Your task to perform on an android device: turn off location history Image 0: 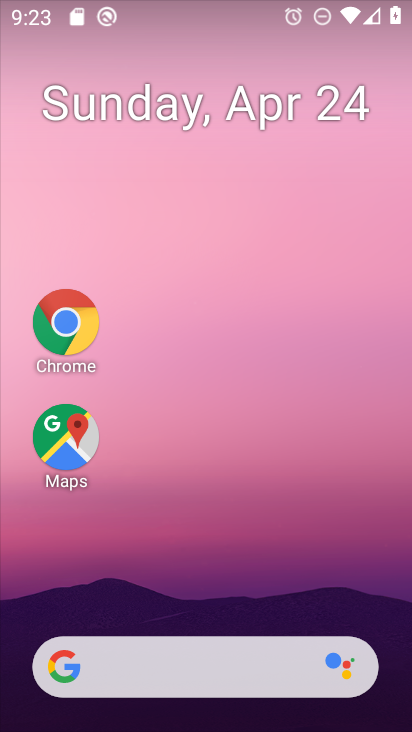
Step 0: click (54, 429)
Your task to perform on an android device: turn off location history Image 1: 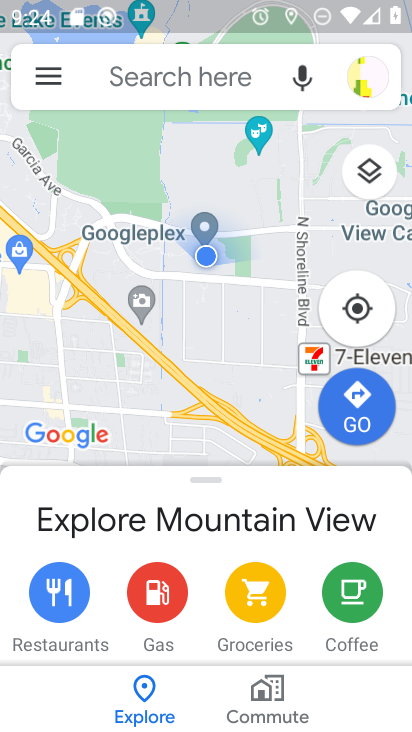
Step 1: click (55, 65)
Your task to perform on an android device: turn off location history Image 2: 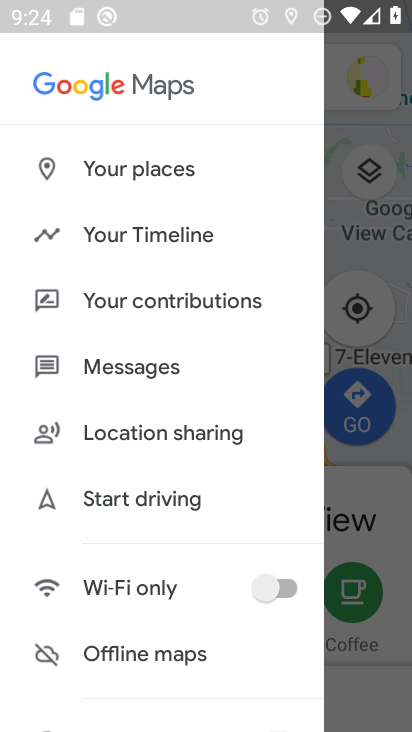
Step 2: click (129, 230)
Your task to perform on an android device: turn off location history Image 3: 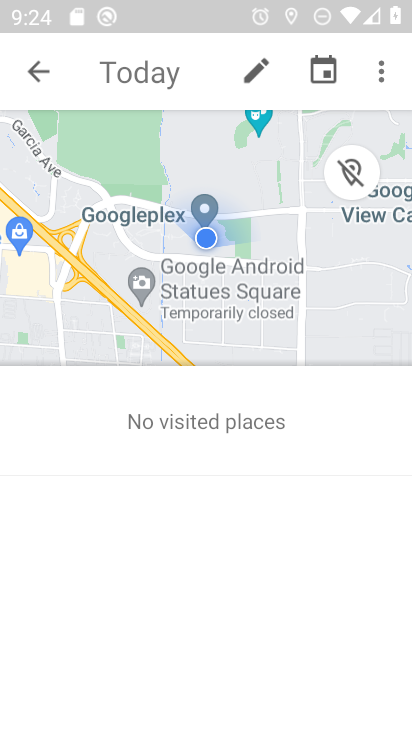
Step 3: click (380, 75)
Your task to perform on an android device: turn off location history Image 4: 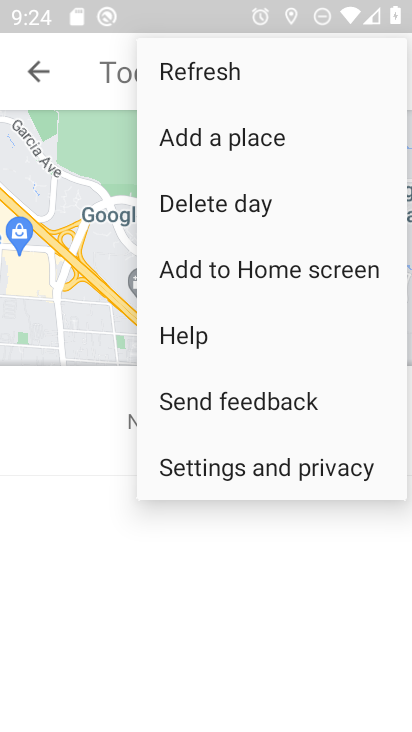
Step 4: click (273, 471)
Your task to perform on an android device: turn off location history Image 5: 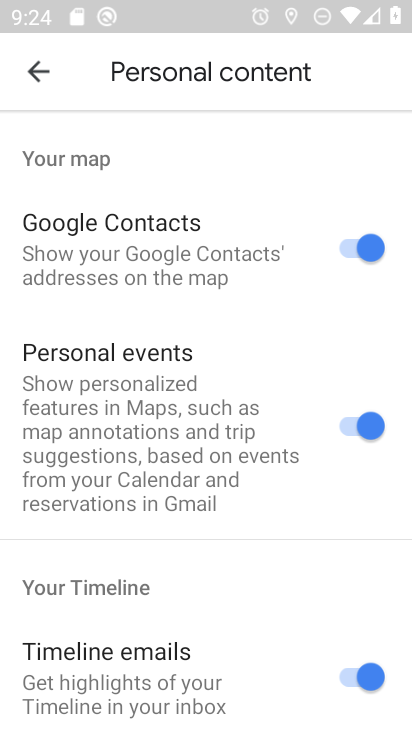
Step 5: drag from (246, 601) to (164, 122)
Your task to perform on an android device: turn off location history Image 6: 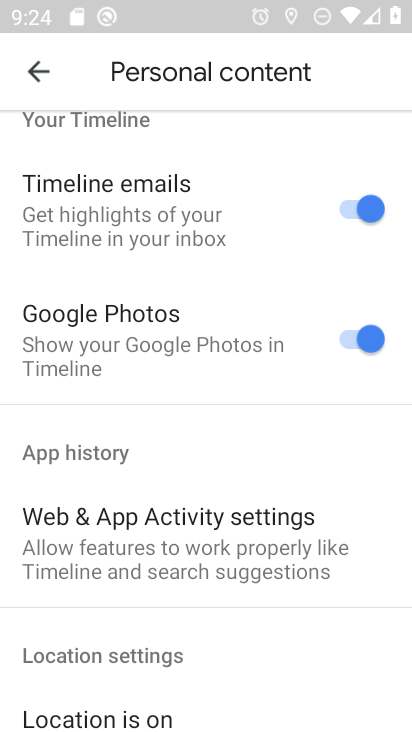
Step 6: drag from (193, 475) to (146, 79)
Your task to perform on an android device: turn off location history Image 7: 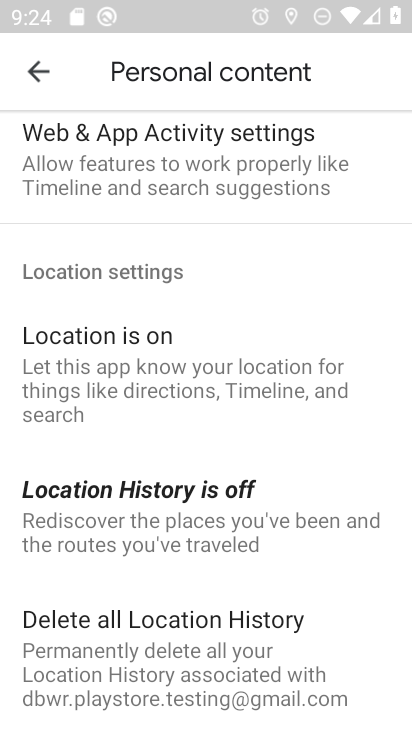
Step 7: click (144, 484)
Your task to perform on an android device: turn off location history Image 8: 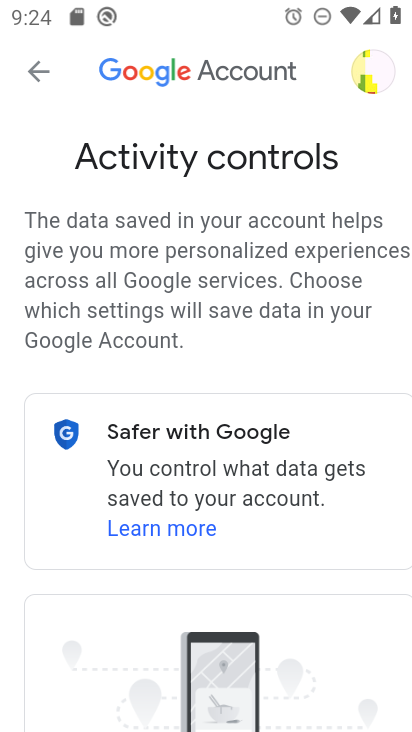
Step 8: task complete